Your task to perform on an android device: toggle wifi Image 0: 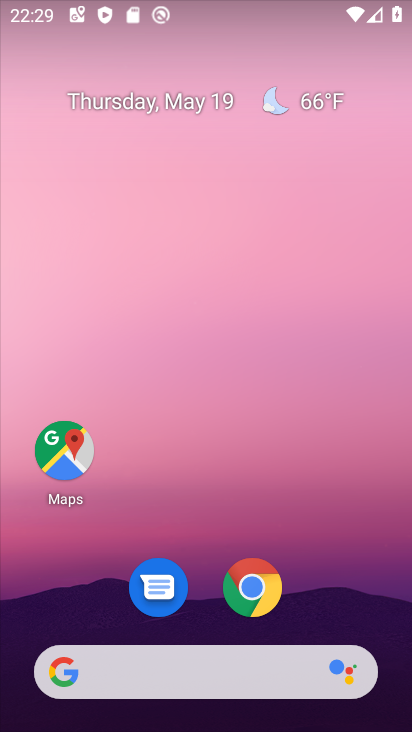
Step 0: drag from (338, 702) to (275, 30)
Your task to perform on an android device: toggle wifi Image 1: 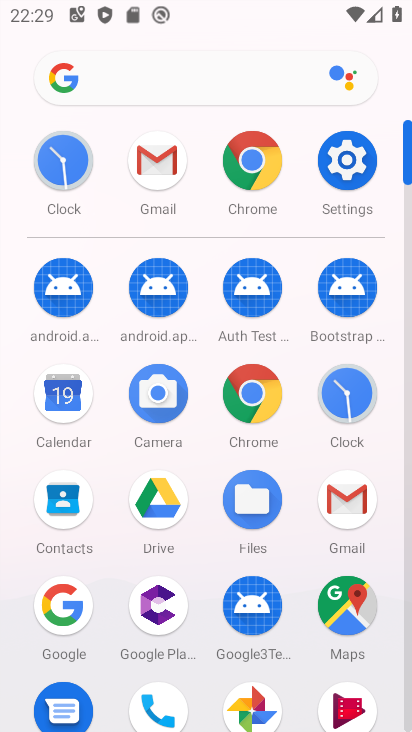
Step 1: click (339, 166)
Your task to perform on an android device: toggle wifi Image 2: 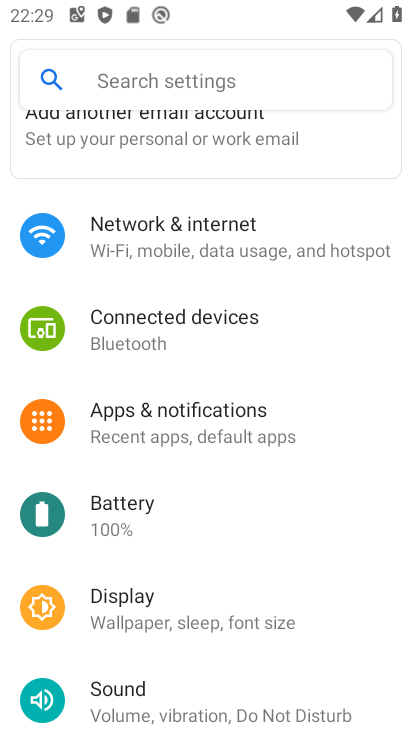
Step 2: click (214, 230)
Your task to perform on an android device: toggle wifi Image 3: 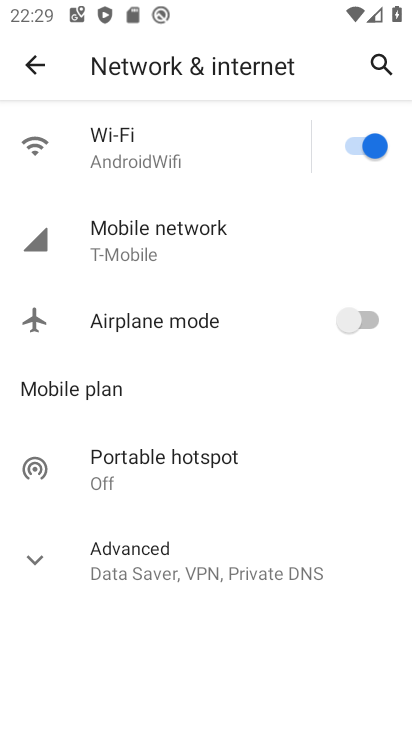
Step 3: click (173, 177)
Your task to perform on an android device: toggle wifi Image 4: 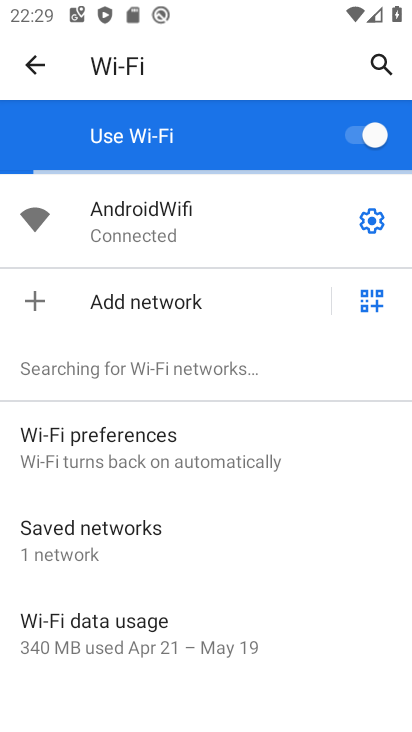
Step 4: task complete